Your task to perform on an android device: Search for vegetarian restaurants on Maps Image 0: 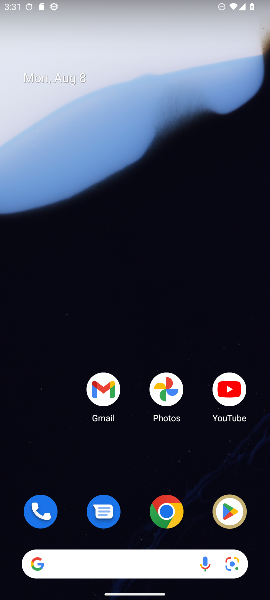
Step 0: drag from (192, 456) to (196, 54)
Your task to perform on an android device: Search for vegetarian restaurants on Maps Image 1: 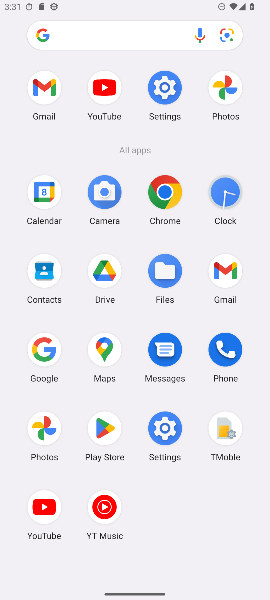
Step 1: click (90, 347)
Your task to perform on an android device: Search for vegetarian restaurants on Maps Image 2: 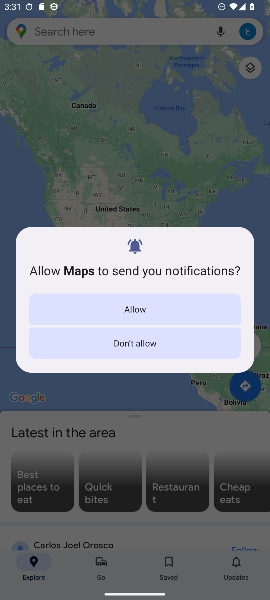
Step 2: click (142, 345)
Your task to perform on an android device: Search for vegetarian restaurants on Maps Image 3: 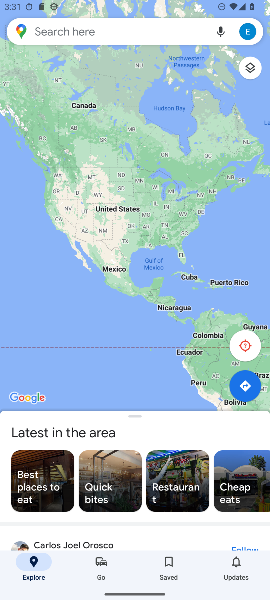
Step 3: click (120, 32)
Your task to perform on an android device: Search for vegetarian restaurants on Maps Image 4: 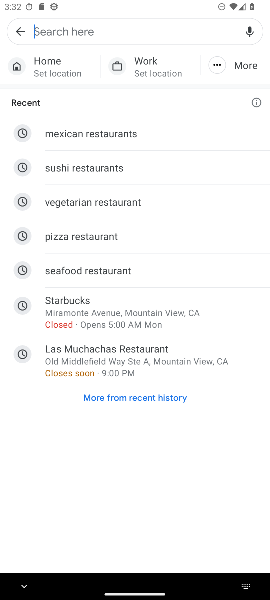
Step 4: type "vegetarian restaurants"
Your task to perform on an android device: Search for vegetarian restaurants on Maps Image 5: 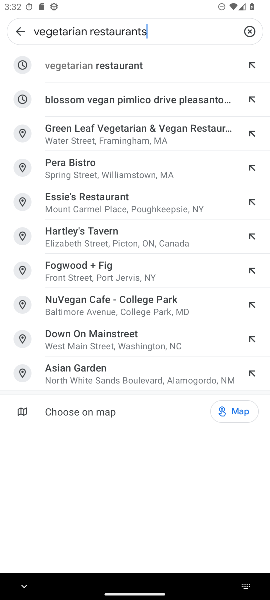
Step 5: press enter
Your task to perform on an android device: Search for vegetarian restaurants on Maps Image 6: 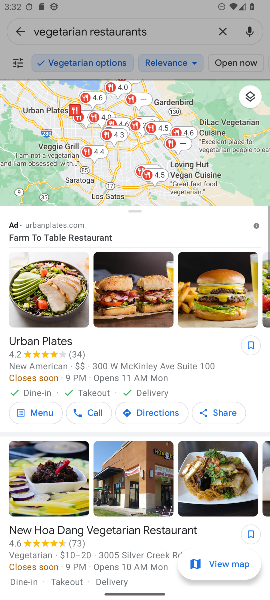
Step 6: task complete